Your task to perform on an android device: turn vacation reply on in the gmail app Image 0: 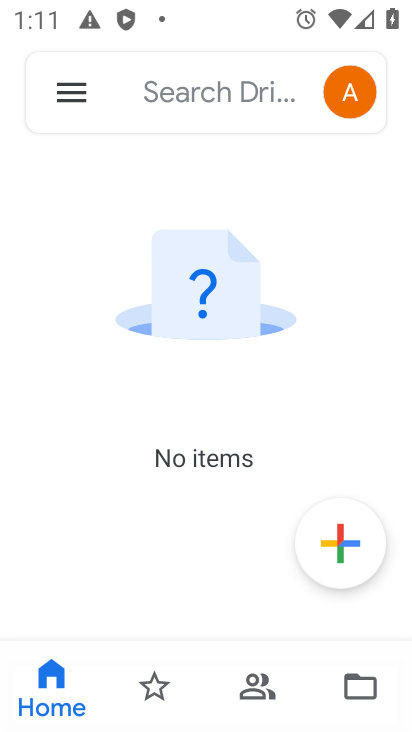
Step 0: click (61, 98)
Your task to perform on an android device: turn vacation reply on in the gmail app Image 1: 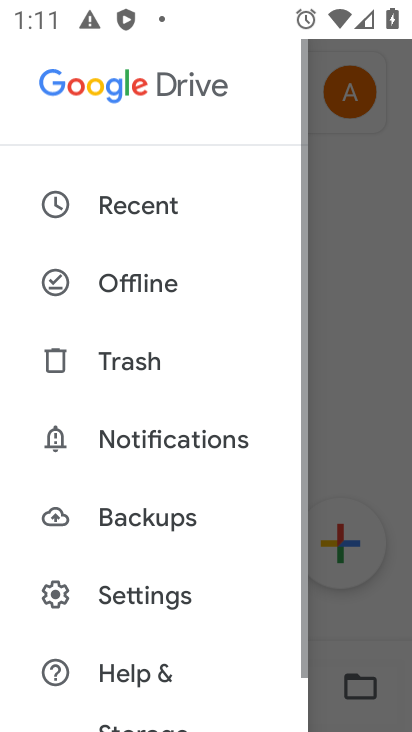
Step 1: drag from (144, 661) to (169, 323)
Your task to perform on an android device: turn vacation reply on in the gmail app Image 2: 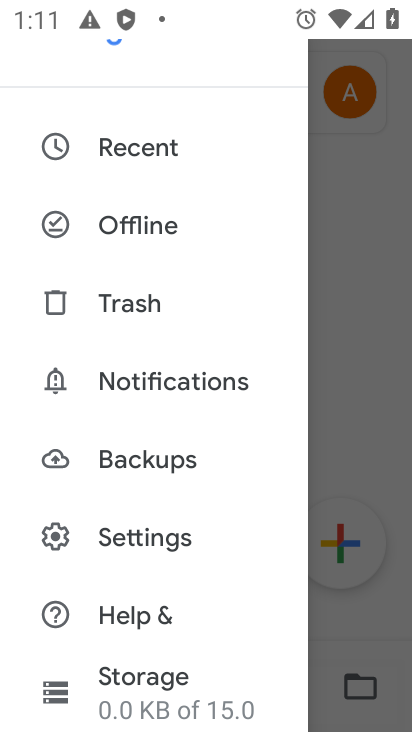
Step 2: click (147, 534)
Your task to perform on an android device: turn vacation reply on in the gmail app Image 3: 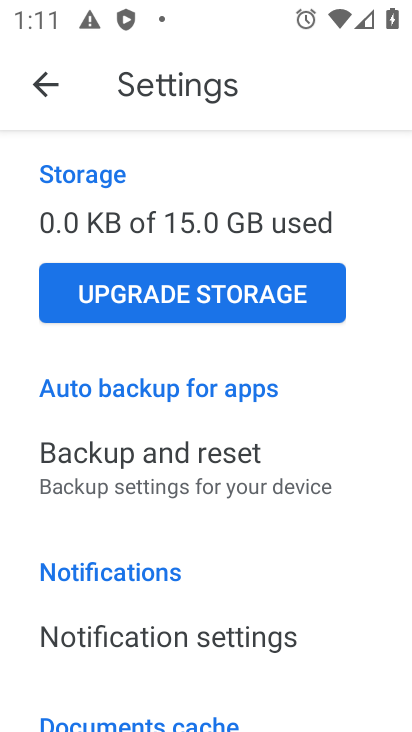
Step 3: click (45, 71)
Your task to perform on an android device: turn vacation reply on in the gmail app Image 4: 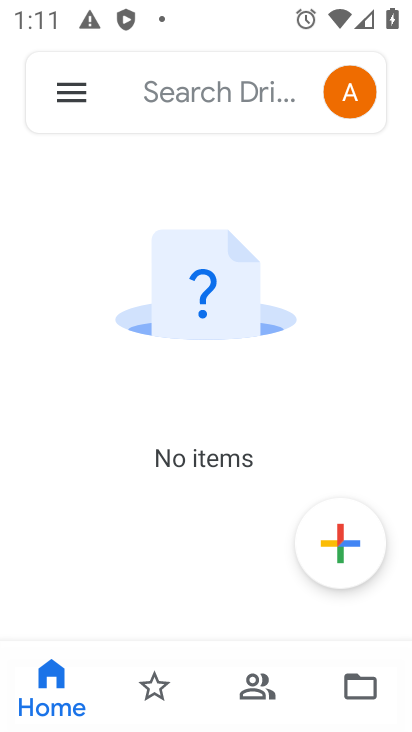
Step 4: press home button
Your task to perform on an android device: turn vacation reply on in the gmail app Image 5: 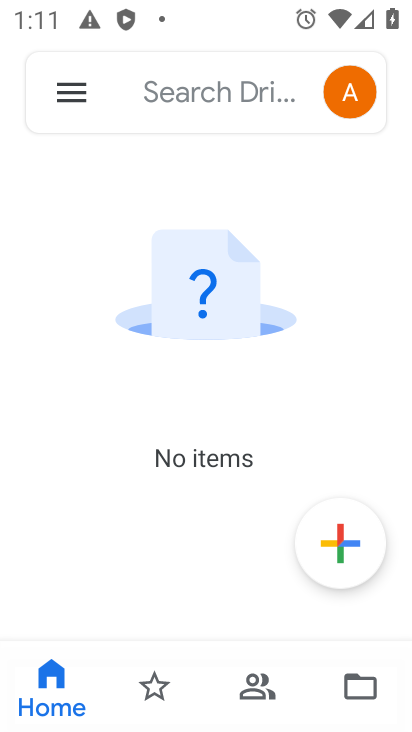
Step 5: press home button
Your task to perform on an android device: turn vacation reply on in the gmail app Image 6: 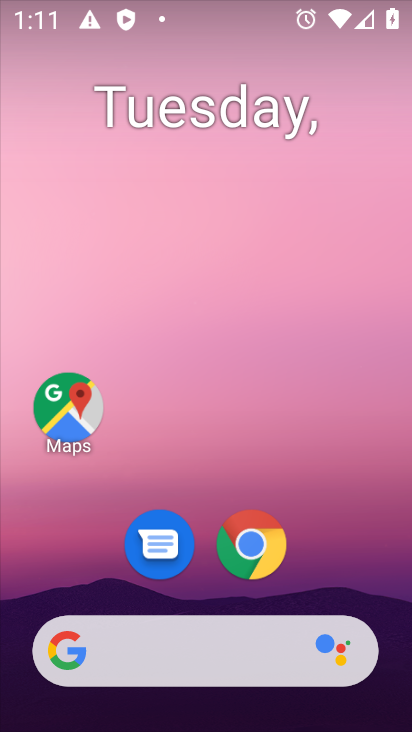
Step 6: drag from (207, 455) to (277, 0)
Your task to perform on an android device: turn vacation reply on in the gmail app Image 7: 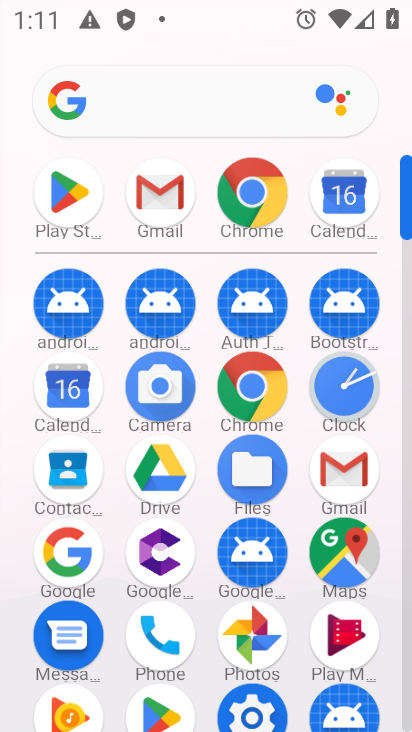
Step 7: click (344, 489)
Your task to perform on an android device: turn vacation reply on in the gmail app Image 8: 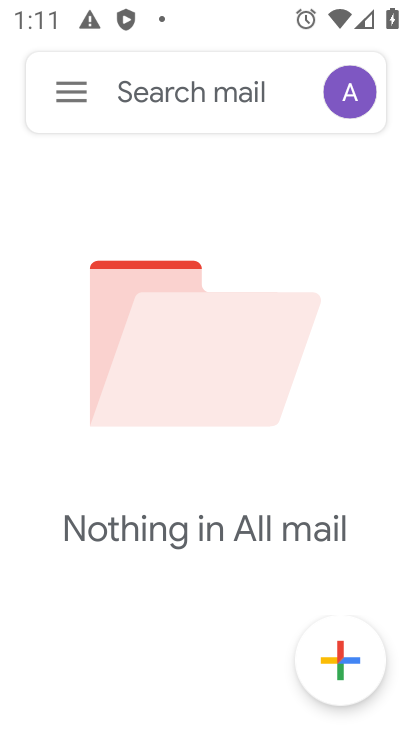
Step 8: click (92, 64)
Your task to perform on an android device: turn vacation reply on in the gmail app Image 9: 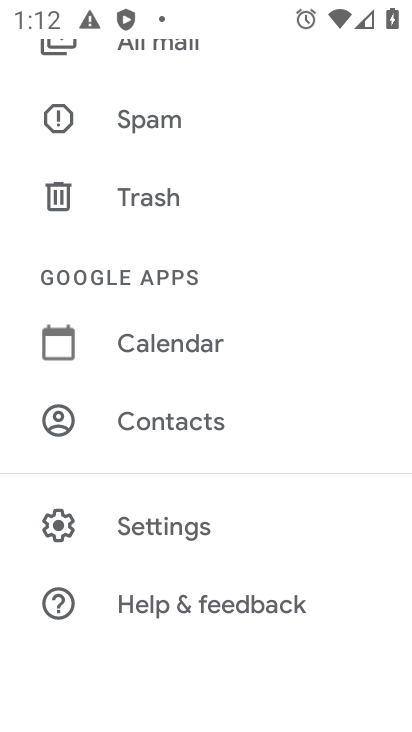
Step 9: click (183, 532)
Your task to perform on an android device: turn vacation reply on in the gmail app Image 10: 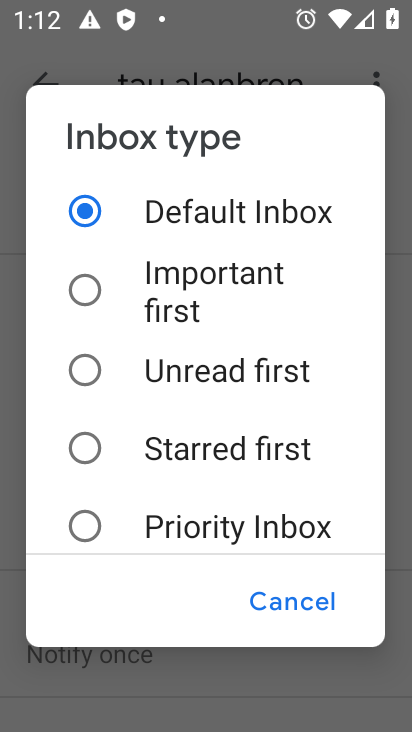
Step 10: click (310, 601)
Your task to perform on an android device: turn vacation reply on in the gmail app Image 11: 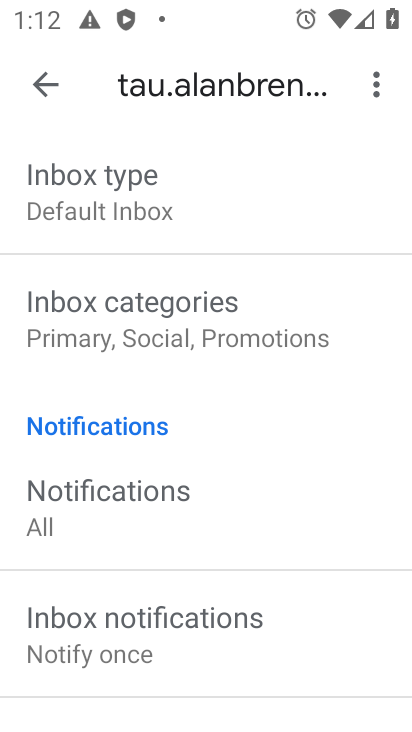
Step 11: drag from (252, 552) to (270, 42)
Your task to perform on an android device: turn vacation reply on in the gmail app Image 12: 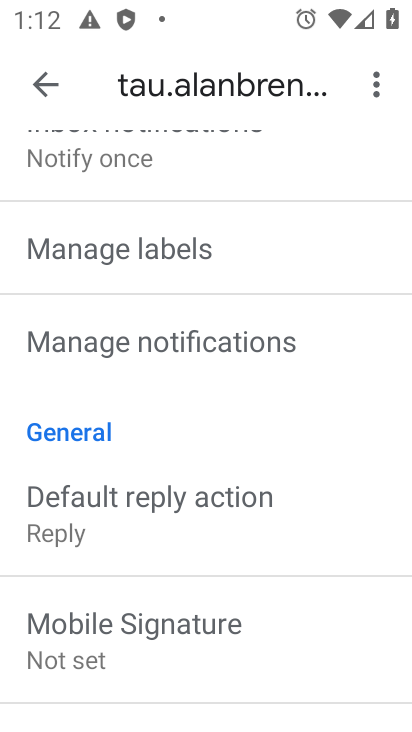
Step 12: drag from (220, 555) to (266, 34)
Your task to perform on an android device: turn vacation reply on in the gmail app Image 13: 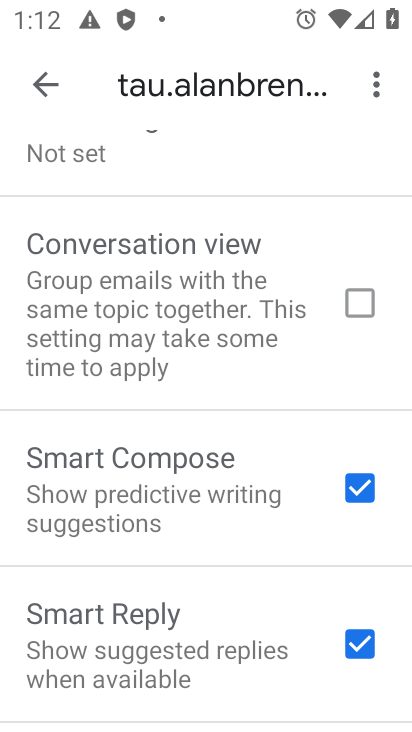
Step 13: drag from (247, 641) to (256, 129)
Your task to perform on an android device: turn vacation reply on in the gmail app Image 14: 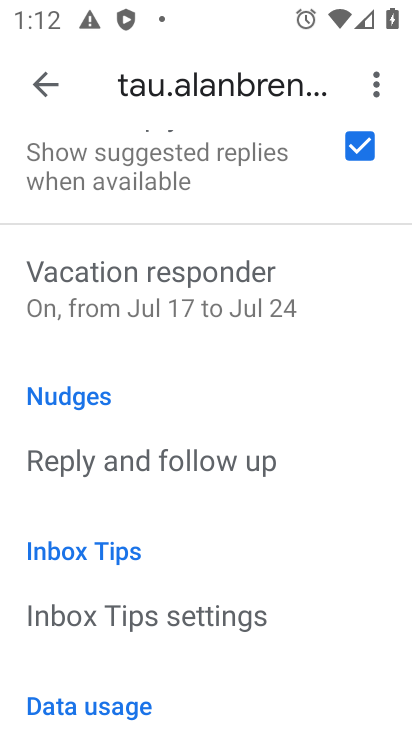
Step 14: click (178, 309)
Your task to perform on an android device: turn vacation reply on in the gmail app Image 15: 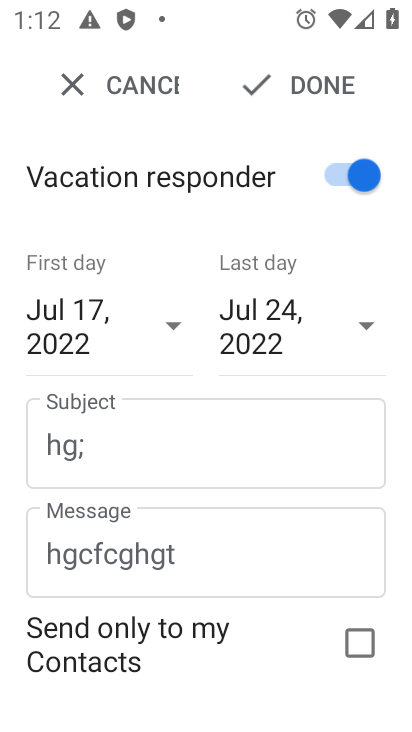
Step 15: task complete